Your task to perform on an android device: add a contact Image 0: 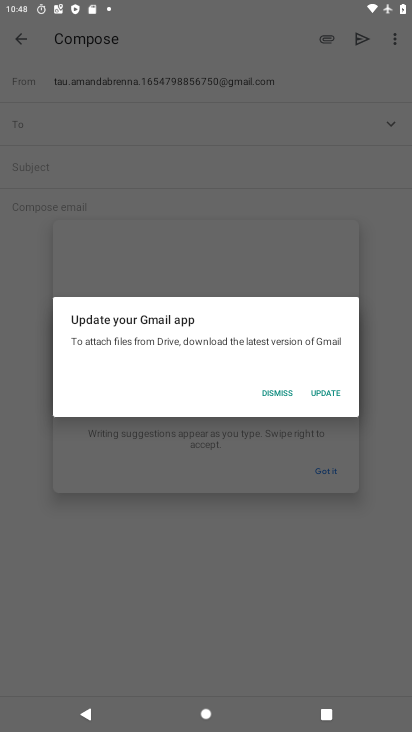
Step 0: press home button
Your task to perform on an android device: add a contact Image 1: 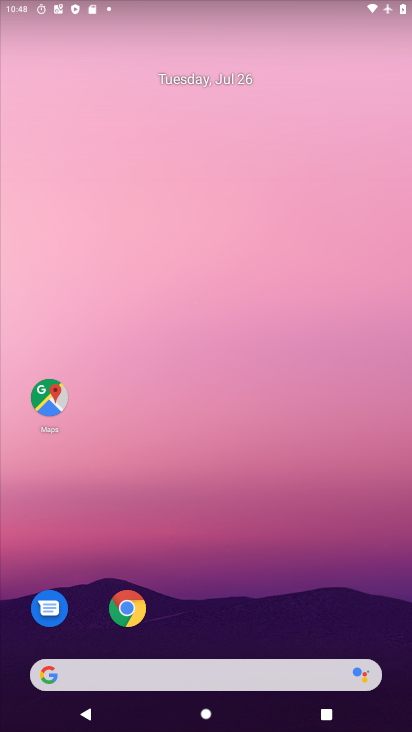
Step 1: drag from (247, 608) to (243, 65)
Your task to perform on an android device: add a contact Image 2: 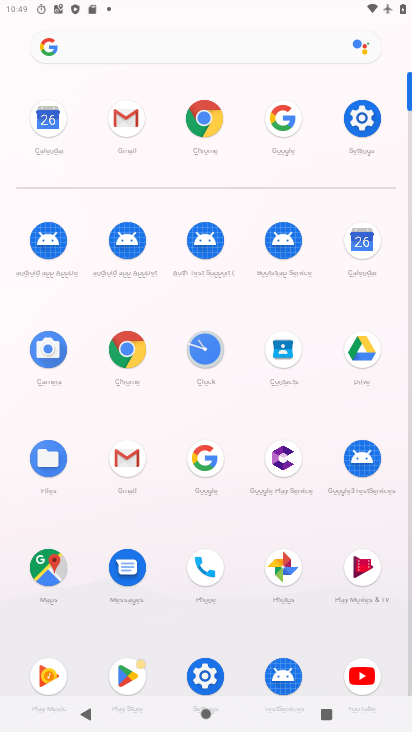
Step 2: click (264, 352)
Your task to perform on an android device: add a contact Image 3: 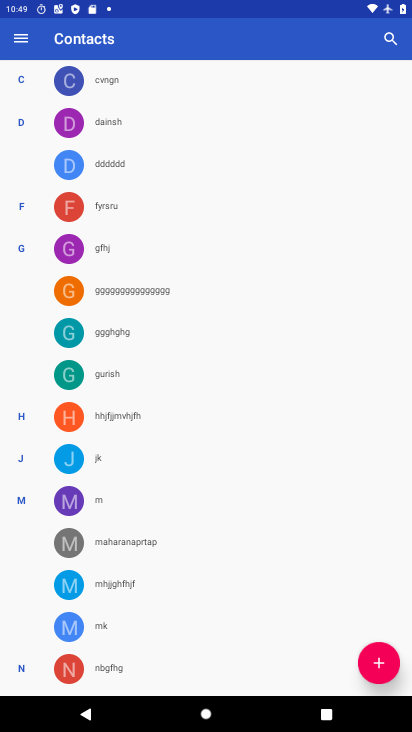
Step 3: click (379, 664)
Your task to perform on an android device: add a contact Image 4: 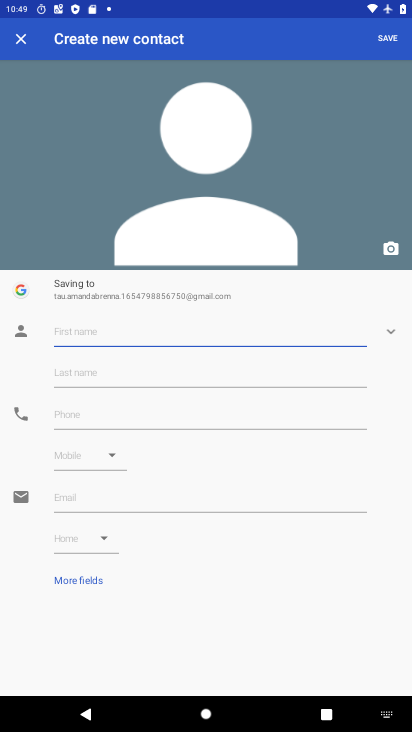
Step 4: click (123, 325)
Your task to perform on an android device: add a contact Image 5: 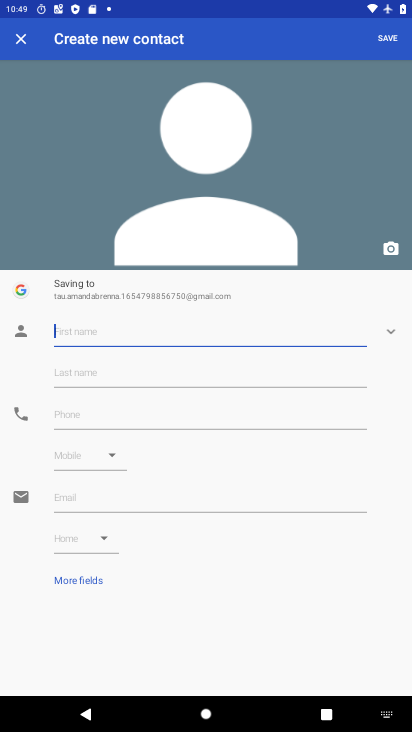
Step 5: type "hfthth"
Your task to perform on an android device: add a contact Image 6: 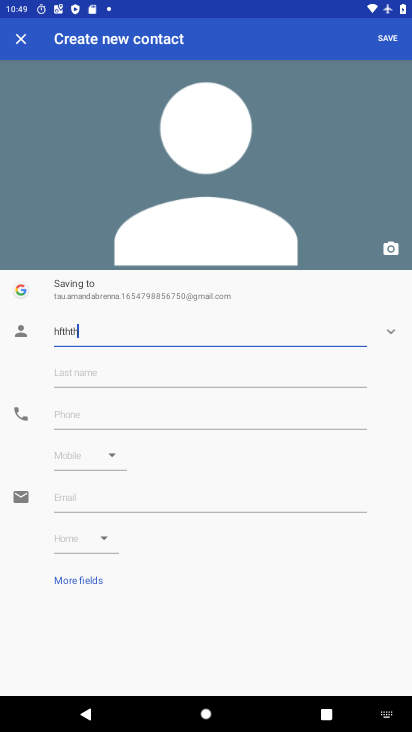
Step 6: click (63, 422)
Your task to perform on an android device: add a contact Image 7: 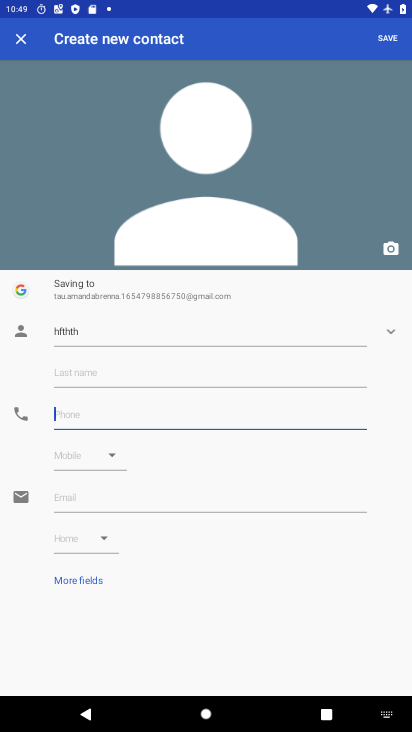
Step 7: type "85675756"
Your task to perform on an android device: add a contact Image 8: 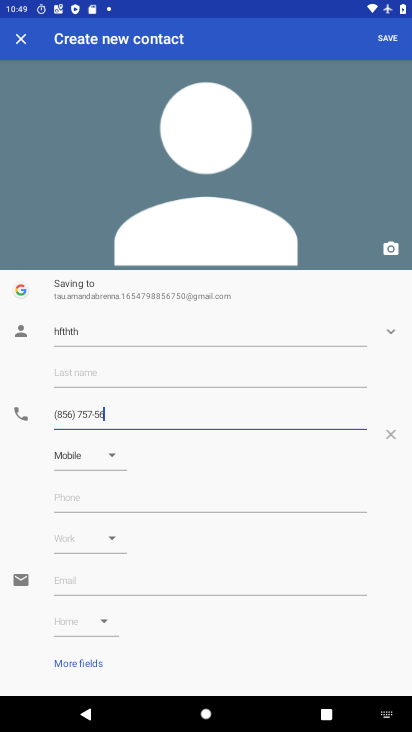
Step 8: click (389, 29)
Your task to perform on an android device: add a contact Image 9: 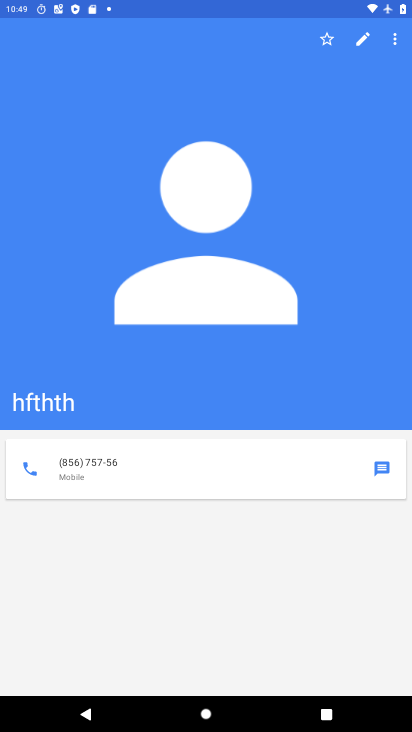
Step 9: task complete